Your task to perform on an android device: Open the calendar app, open the side menu, and click the "Day" option Image 0: 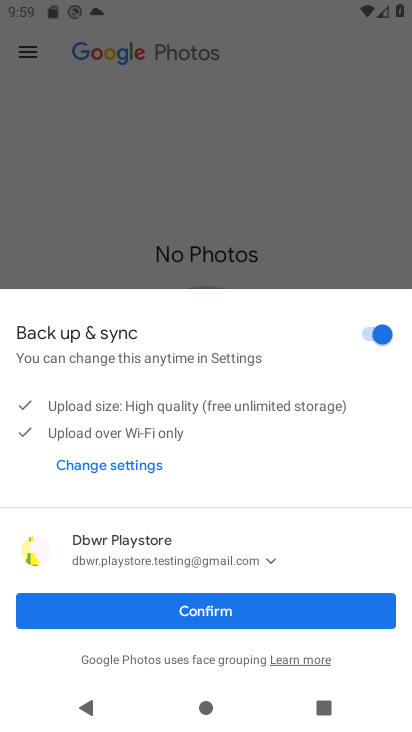
Step 0: press home button
Your task to perform on an android device: Open the calendar app, open the side menu, and click the "Day" option Image 1: 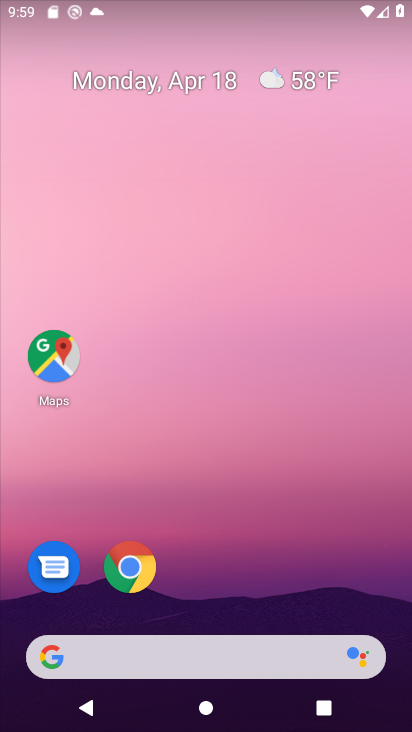
Step 1: drag from (208, 490) to (265, 4)
Your task to perform on an android device: Open the calendar app, open the side menu, and click the "Day" option Image 2: 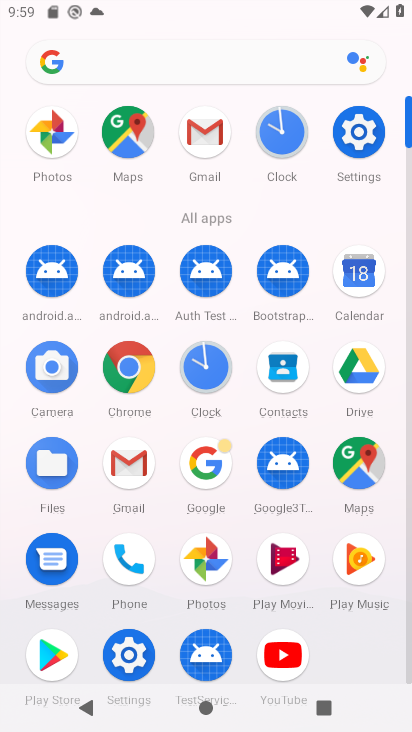
Step 2: click (358, 264)
Your task to perform on an android device: Open the calendar app, open the side menu, and click the "Day" option Image 3: 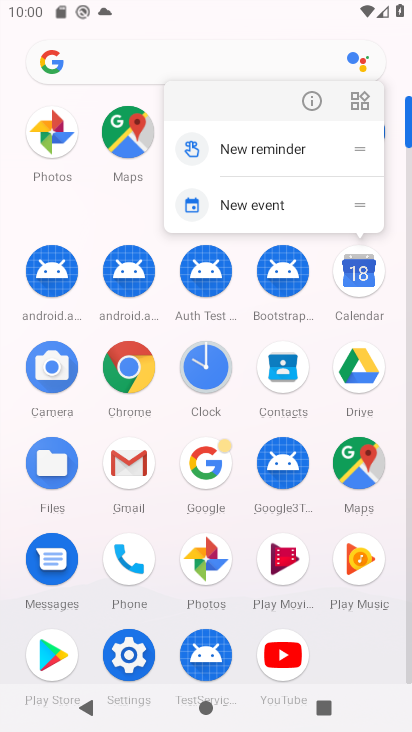
Step 3: click (318, 98)
Your task to perform on an android device: Open the calendar app, open the side menu, and click the "Day" option Image 4: 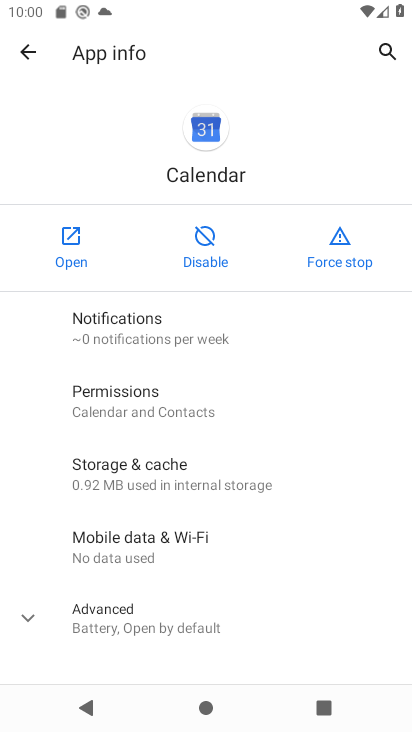
Step 4: click (69, 237)
Your task to perform on an android device: Open the calendar app, open the side menu, and click the "Day" option Image 5: 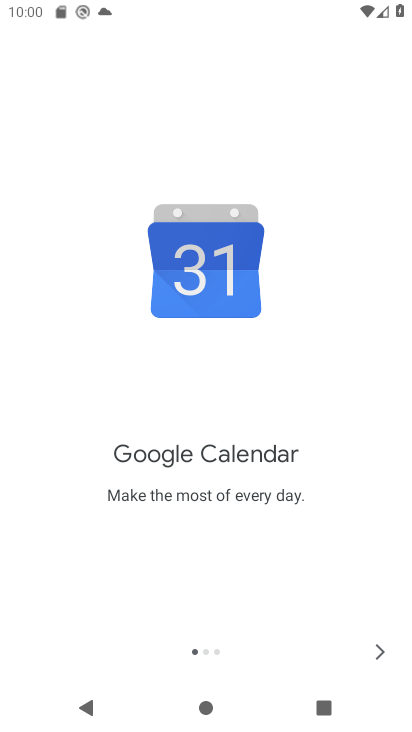
Step 5: click (367, 652)
Your task to perform on an android device: Open the calendar app, open the side menu, and click the "Day" option Image 6: 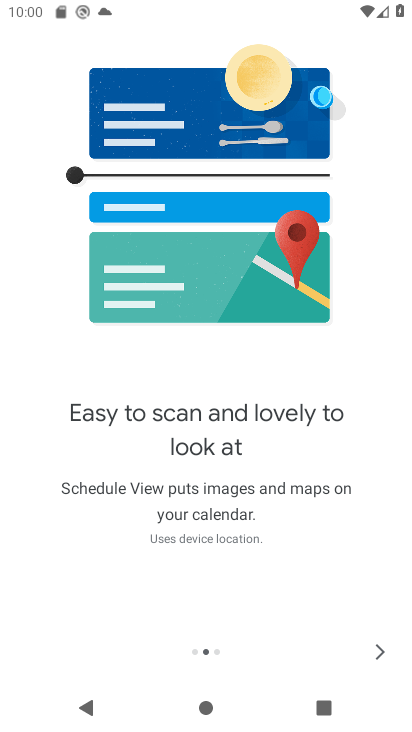
Step 6: click (393, 663)
Your task to perform on an android device: Open the calendar app, open the side menu, and click the "Day" option Image 7: 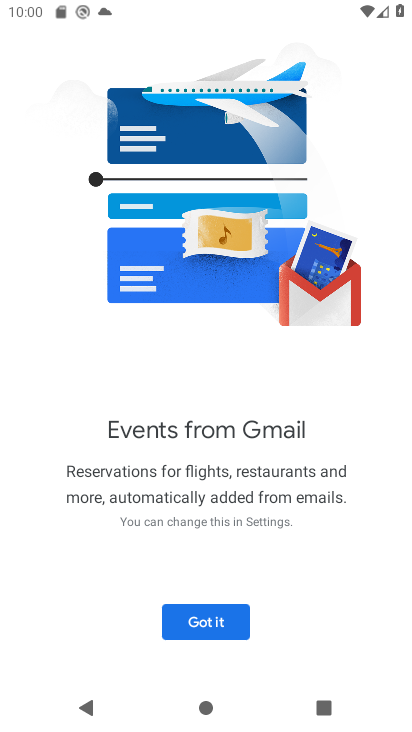
Step 7: click (192, 634)
Your task to perform on an android device: Open the calendar app, open the side menu, and click the "Day" option Image 8: 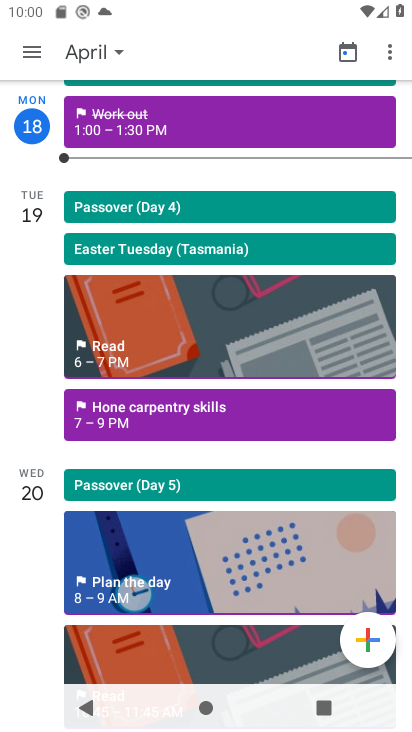
Step 8: click (35, 44)
Your task to perform on an android device: Open the calendar app, open the side menu, and click the "Day" option Image 9: 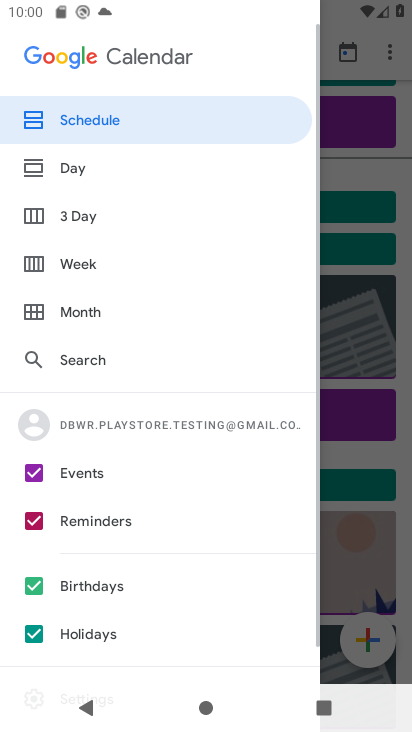
Step 9: click (79, 176)
Your task to perform on an android device: Open the calendar app, open the side menu, and click the "Day" option Image 10: 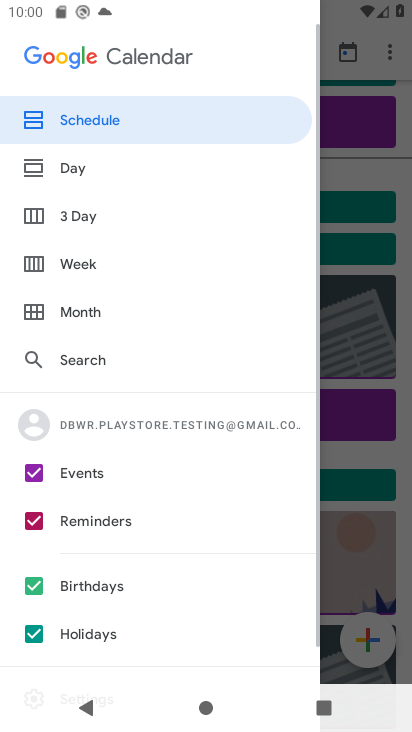
Step 10: click (88, 171)
Your task to perform on an android device: Open the calendar app, open the side menu, and click the "Day" option Image 11: 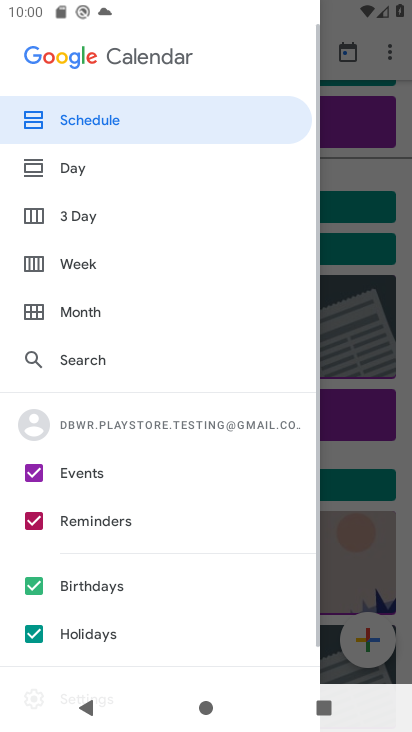
Step 11: click (161, 167)
Your task to perform on an android device: Open the calendar app, open the side menu, and click the "Day" option Image 12: 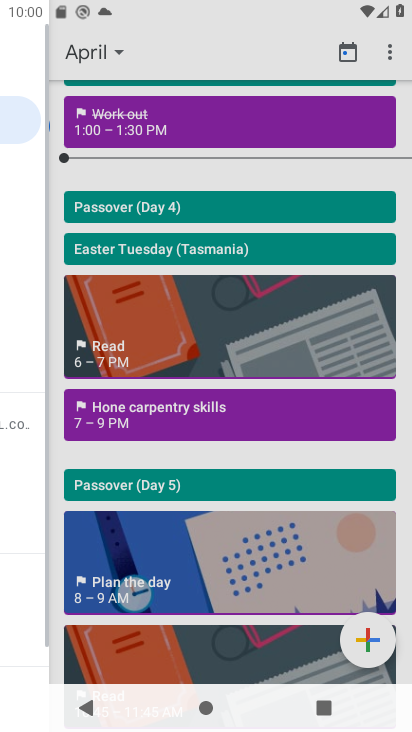
Step 12: click (217, 174)
Your task to perform on an android device: Open the calendar app, open the side menu, and click the "Day" option Image 13: 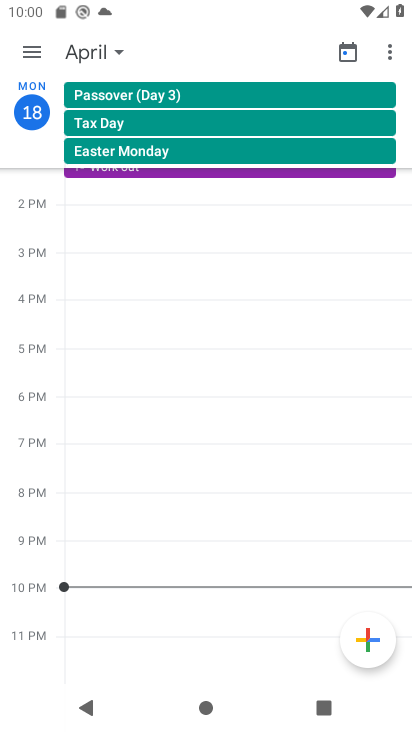
Step 13: task complete